Your task to perform on an android device: Open wifi settings Image 0: 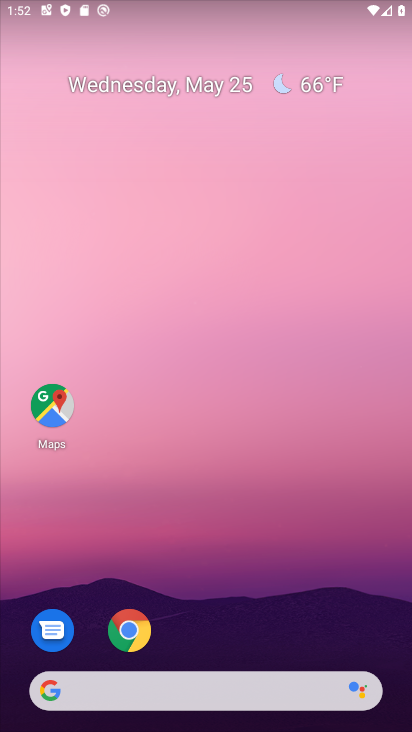
Step 0: press home button
Your task to perform on an android device: Open wifi settings Image 1: 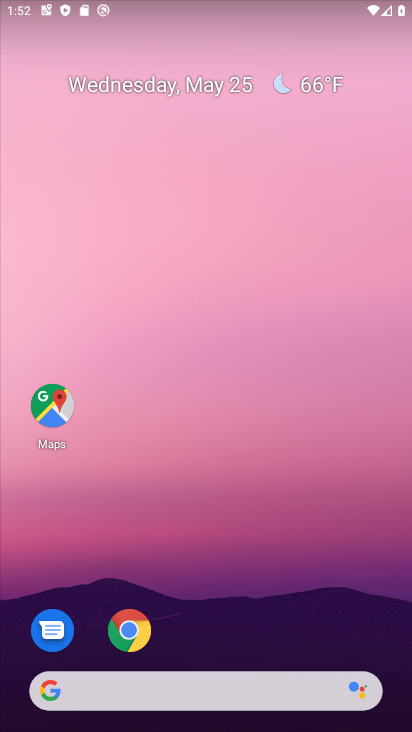
Step 1: drag from (209, 644) to (219, 84)
Your task to perform on an android device: Open wifi settings Image 2: 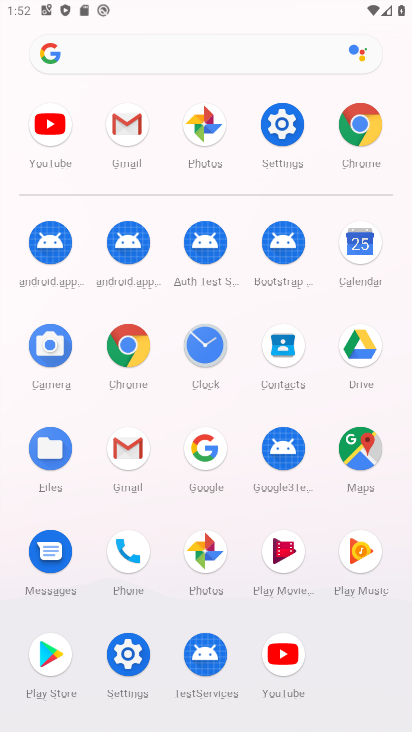
Step 2: click (282, 114)
Your task to perform on an android device: Open wifi settings Image 3: 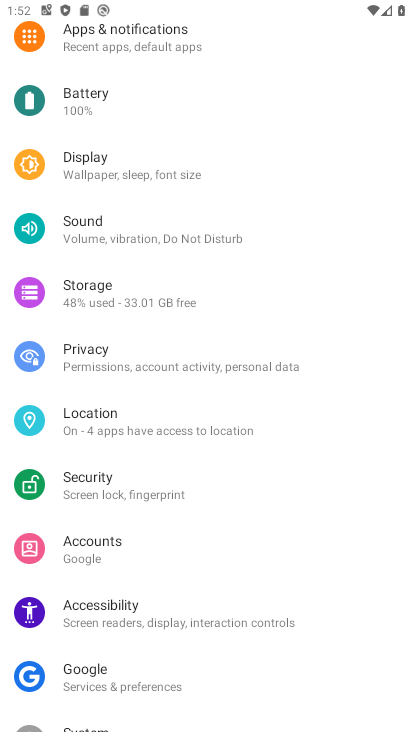
Step 3: drag from (137, 80) to (152, 623)
Your task to perform on an android device: Open wifi settings Image 4: 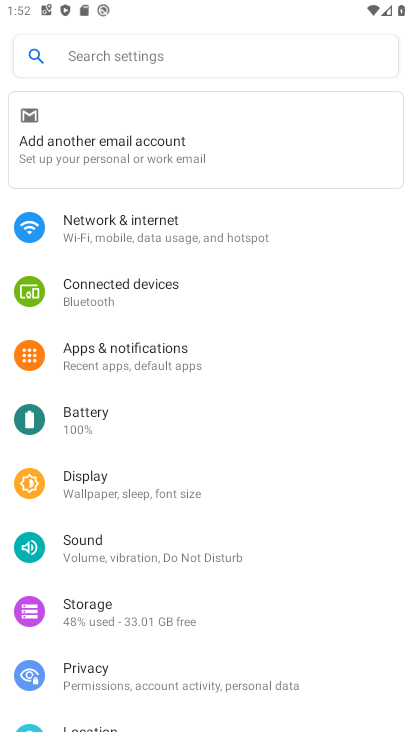
Step 4: click (146, 227)
Your task to perform on an android device: Open wifi settings Image 5: 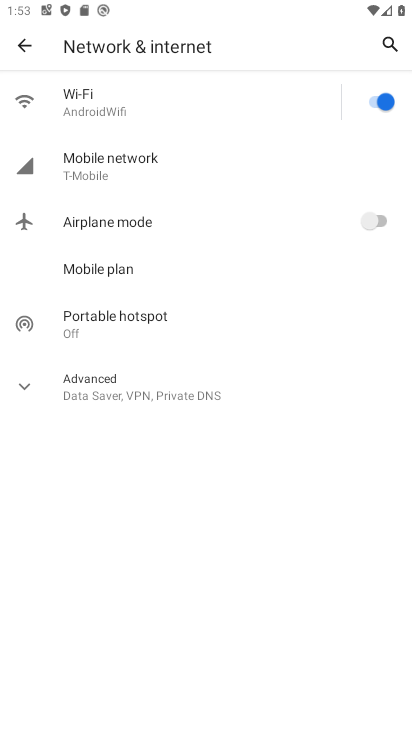
Step 5: click (199, 99)
Your task to perform on an android device: Open wifi settings Image 6: 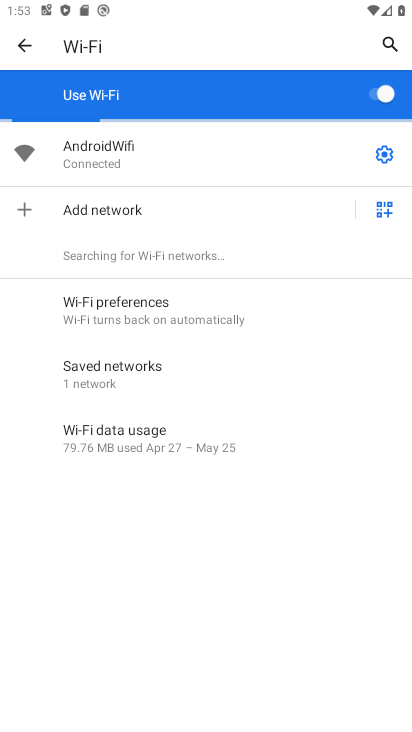
Step 6: task complete